Your task to perform on an android device: find snoozed emails in the gmail app Image 0: 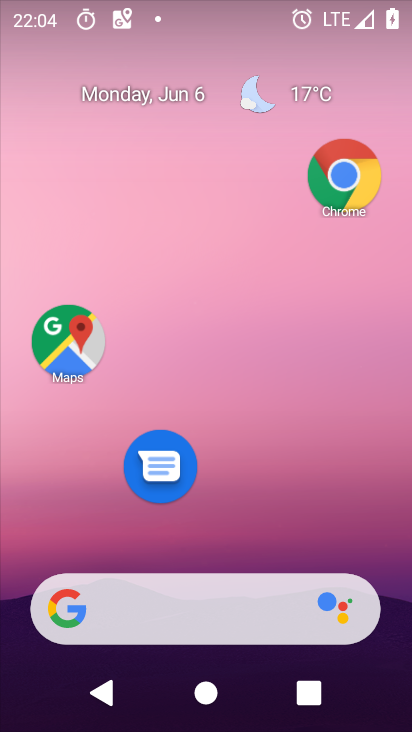
Step 0: drag from (222, 502) to (344, 104)
Your task to perform on an android device: find snoozed emails in the gmail app Image 1: 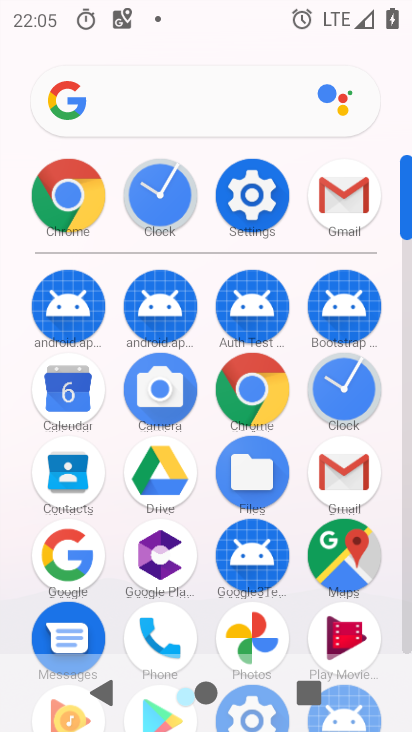
Step 1: click (343, 459)
Your task to perform on an android device: find snoozed emails in the gmail app Image 2: 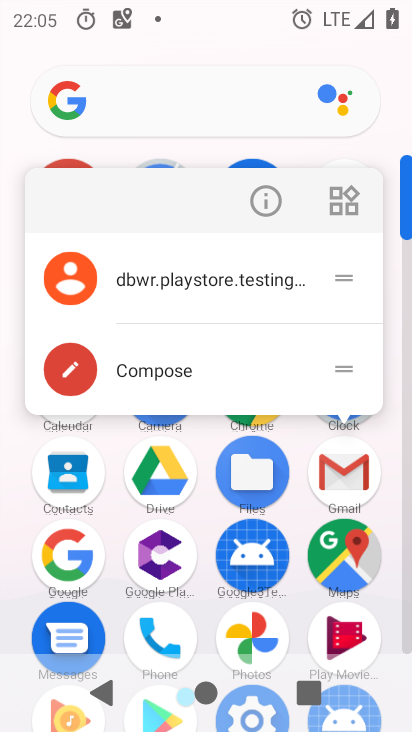
Step 2: click (206, 283)
Your task to perform on an android device: find snoozed emails in the gmail app Image 3: 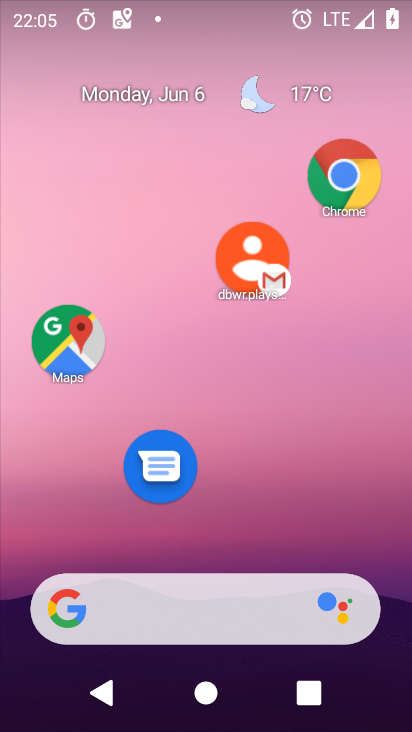
Step 3: drag from (227, 442) to (272, 99)
Your task to perform on an android device: find snoozed emails in the gmail app Image 4: 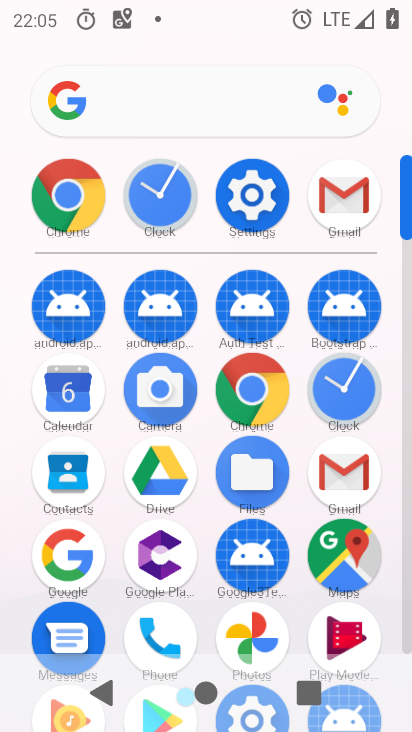
Step 4: click (335, 471)
Your task to perform on an android device: find snoozed emails in the gmail app Image 5: 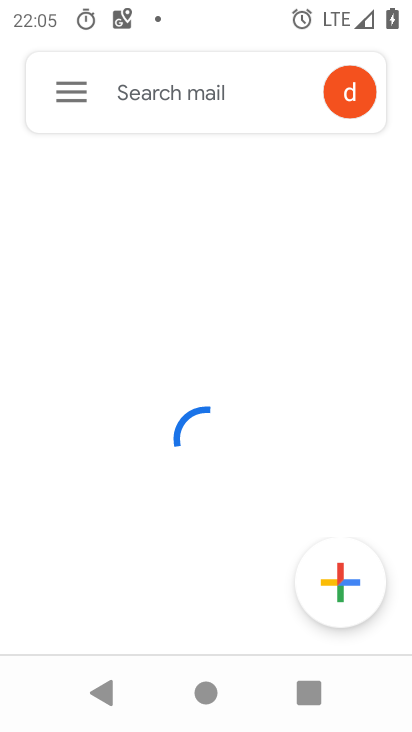
Step 5: drag from (193, 491) to (282, 97)
Your task to perform on an android device: find snoozed emails in the gmail app Image 6: 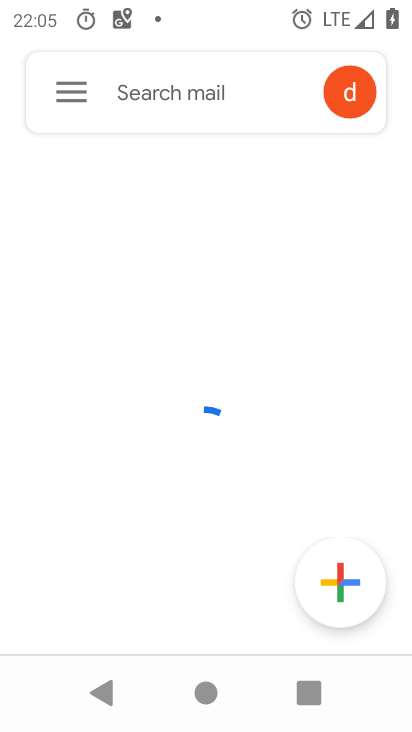
Step 6: click (89, 93)
Your task to perform on an android device: find snoozed emails in the gmail app Image 7: 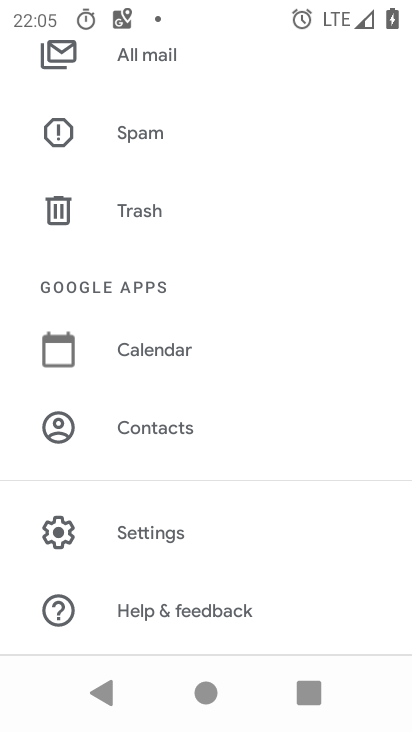
Step 7: drag from (161, 172) to (266, 688)
Your task to perform on an android device: find snoozed emails in the gmail app Image 8: 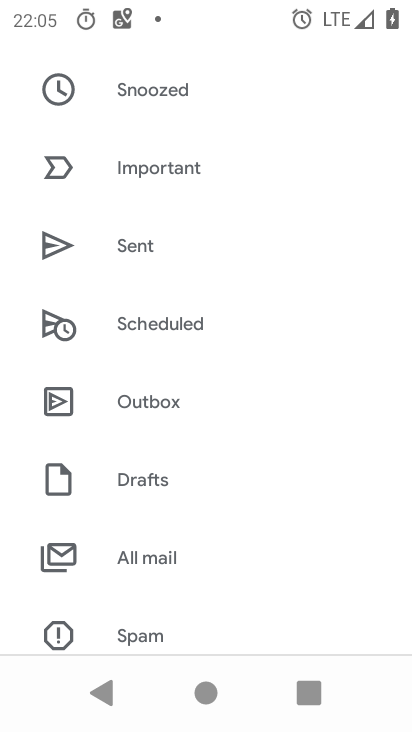
Step 8: click (162, 95)
Your task to perform on an android device: find snoozed emails in the gmail app Image 9: 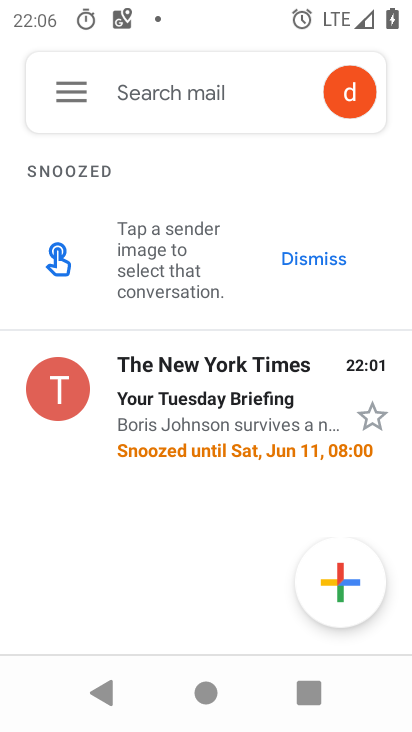
Step 9: task complete